Your task to perform on an android device: check storage Image 0: 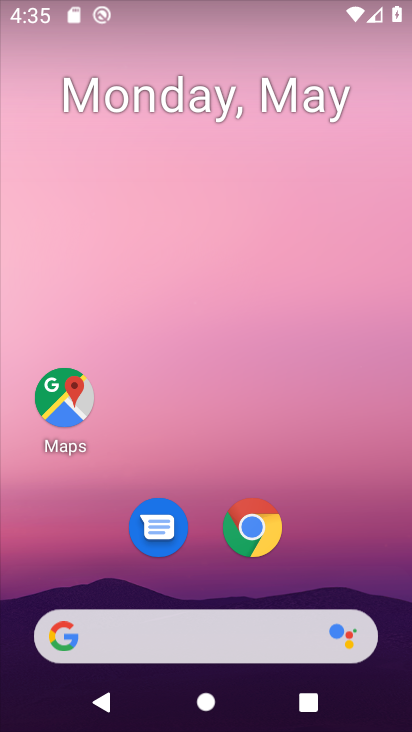
Step 0: drag from (339, 483) to (294, 155)
Your task to perform on an android device: check storage Image 1: 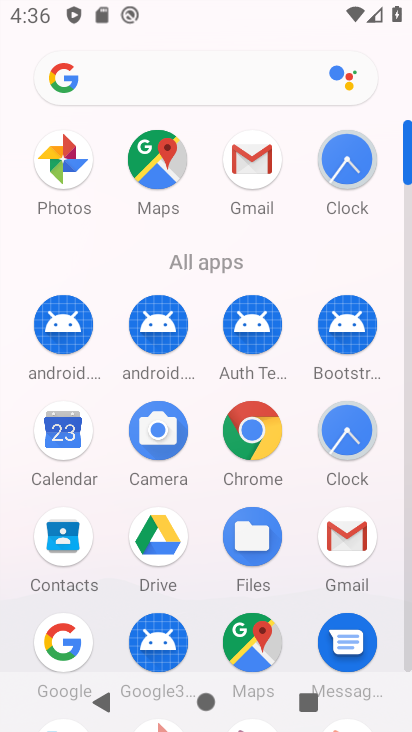
Step 1: drag from (403, 119) to (404, 67)
Your task to perform on an android device: check storage Image 2: 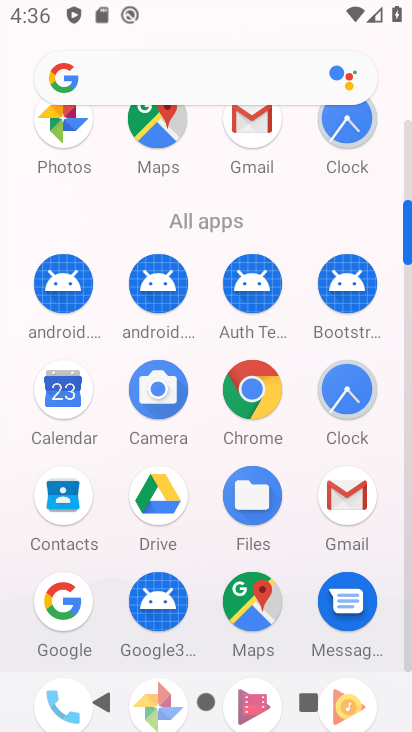
Step 2: drag from (404, 208) to (398, 159)
Your task to perform on an android device: check storage Image 3: 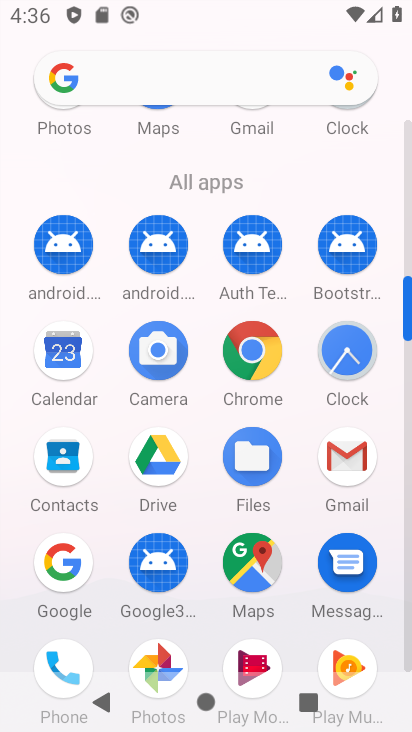
Step 3: drag from (407, 283) to (405, 230)
Your task to perform on an android device: check storage Image 4: 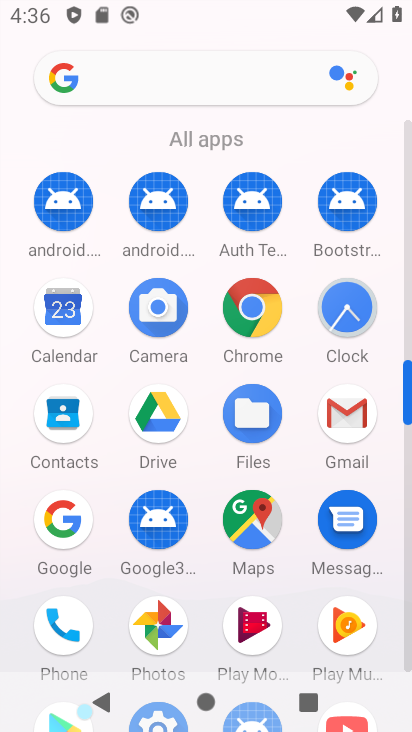
Step 4: drag from (407, 364) to (403, 280)
Your task to perform on an android device: check storage Image 5: 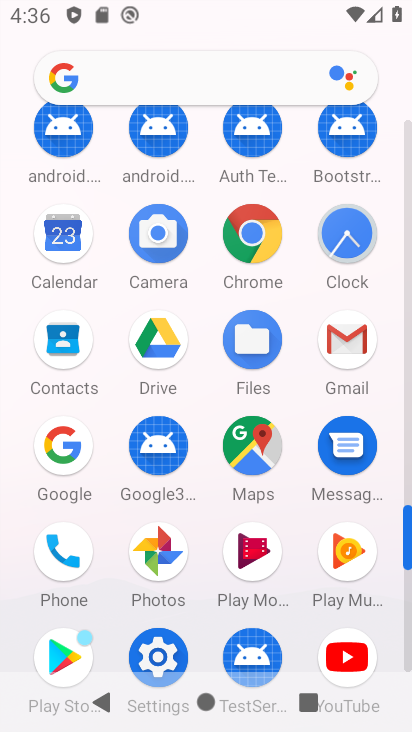
Step 5: click (167, 644)
Your task to perform on an android device: check storage Image 6: 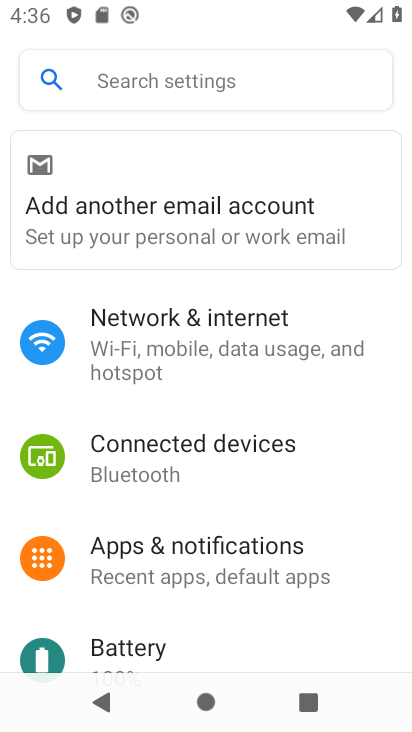
Step 6: drag from (361, 653) to (340, 338)
Your task to perform on an android device: check storage Image 7: 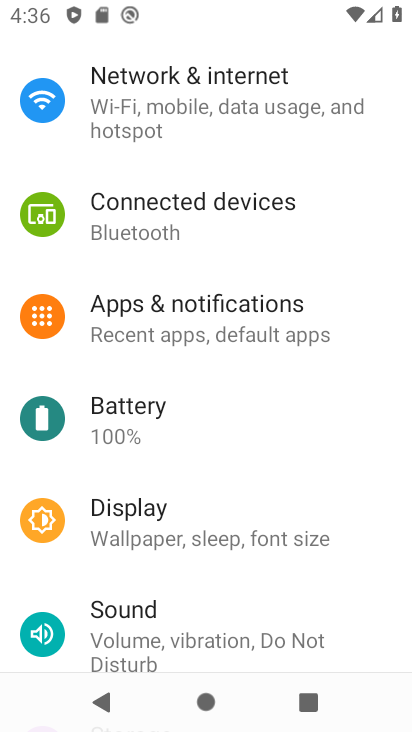
Step 7: drag from (350, 614) to (337, 388)
Your task to perform on an android device: check storage Image 8: 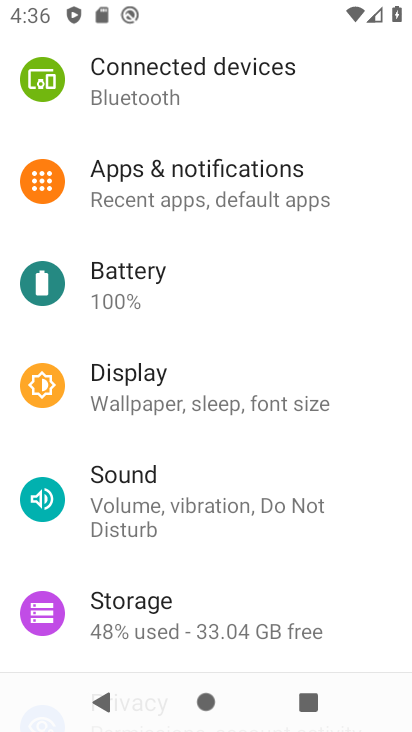
Step 8: click (164, 628)
Your task to perform on an android device: check storage Image 9: 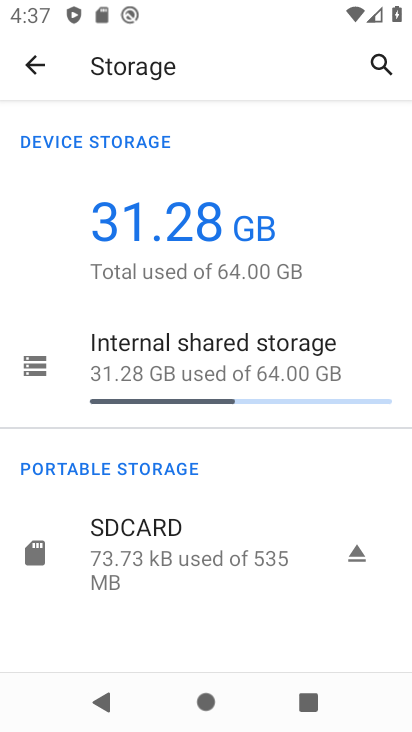
Step 9: task complete